Your task to perform on an android device: Go to privacy settings Image 0: 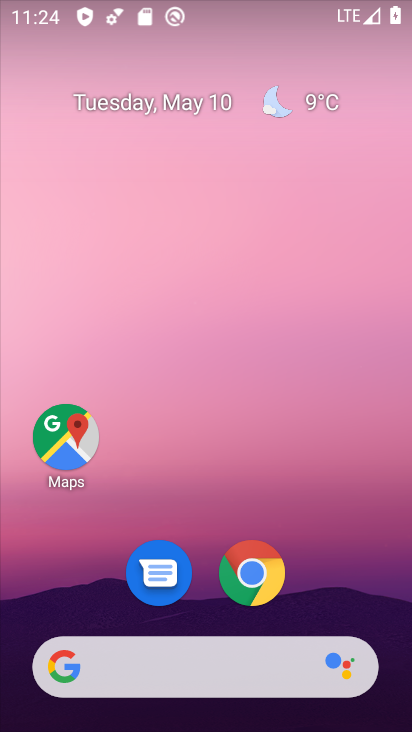
Step 0: drag from (141, 668) to (316, 34)
Your task to perform on an android device: Go to privacy settings Image 1: 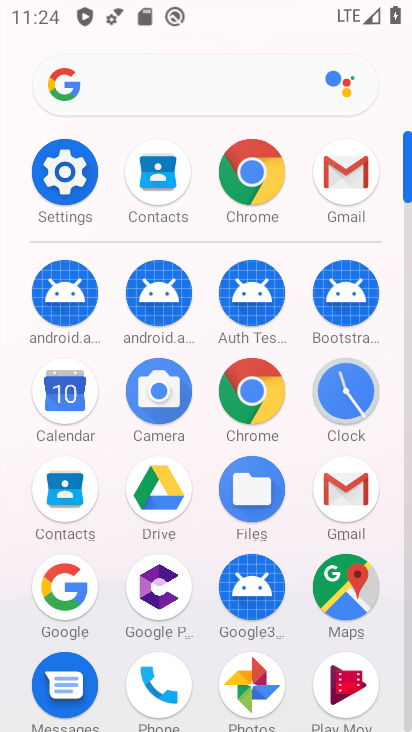
Step 1: click (62, 188)
Your task to perform on an android device: Go to privacy settings Image 2: 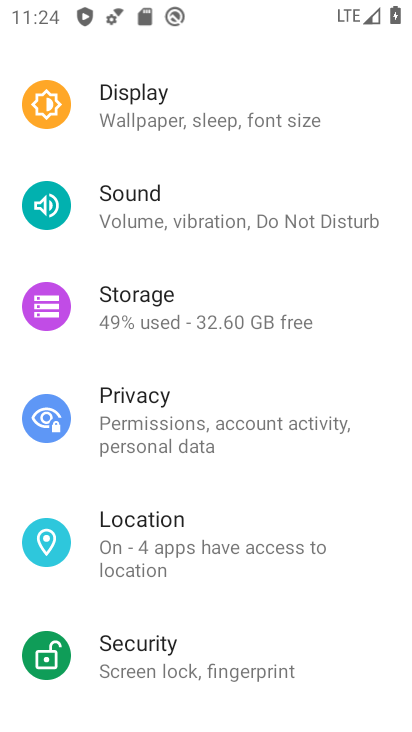
Step 2: click (157, 409)
Your task to perform on an android device: Go to privacy settings Image 3: 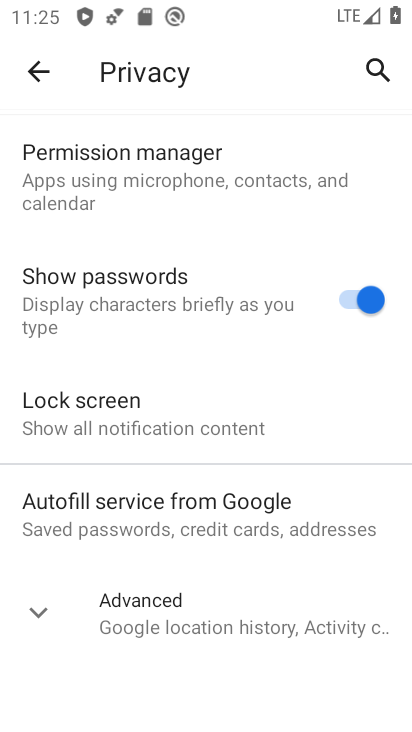
Step 3: task complete